Your task to perform on an android device: Open battery settings Image 0: 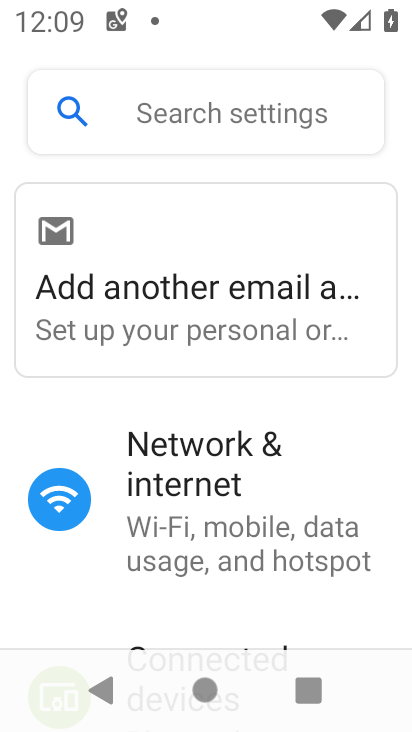
Step 0: press home button
Your task to perform on an android device: Open battery settings Image 1: 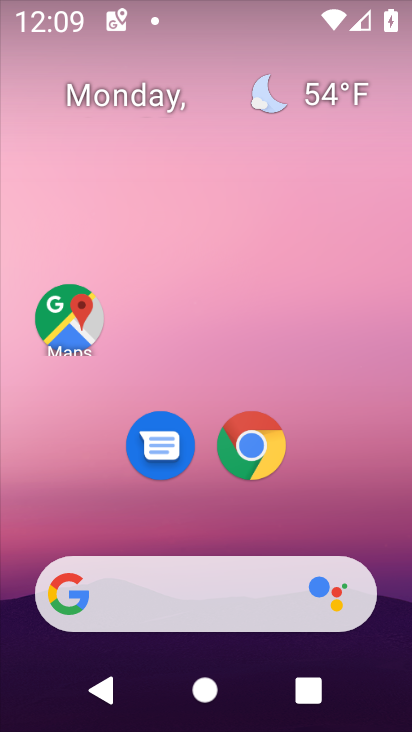
Step 1: drag from (353, 462) to (326, 166)
Your task to perform on an android device: Open battery settings Image 2: 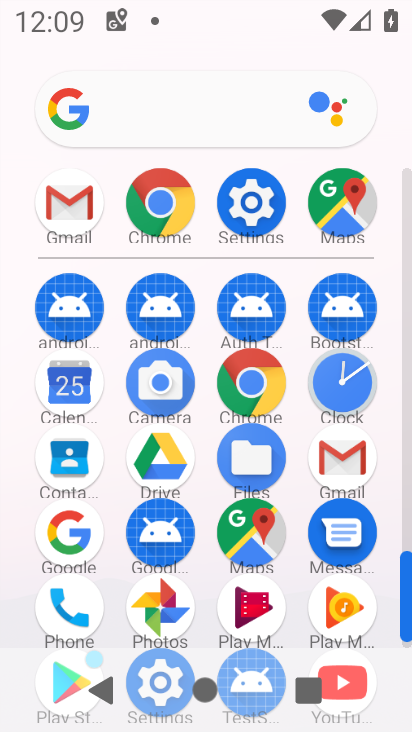
Step 2: drag from (287, 553) to (283, 245)
Your task to perform on an android device: Open battery settings Image 3: 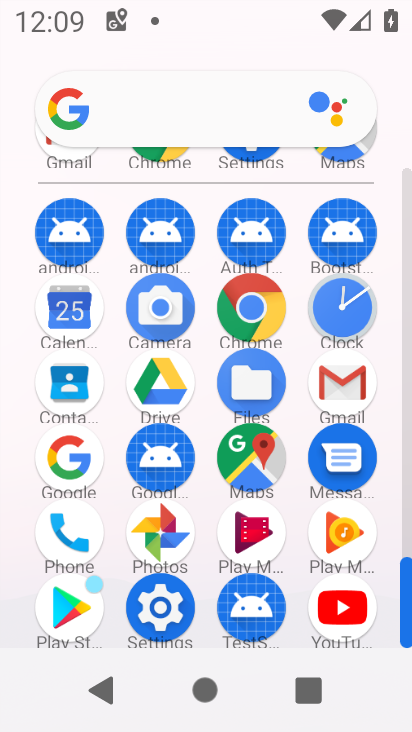
Step 3: click (174, 608)
Your task to perform on an android device: Open battery settings Image 4: 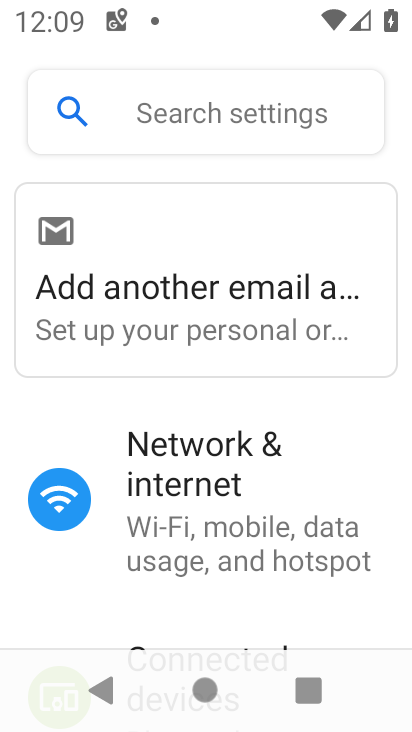
Step 4: drag from (380, 603) to (374, 258)
Your task to perform on an android device: Open battery settings Image 5: 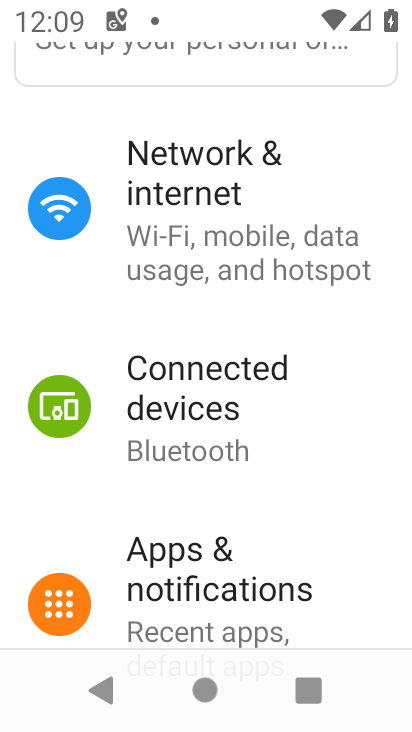
Step 5: drag from (350, 578) to (320, 178)
Your task to perform on an android device: Open battery settings Image 6: 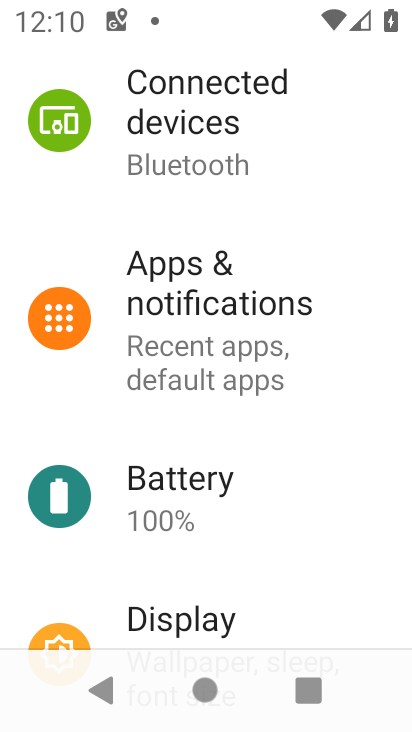
Step 6: click (216, 498)
Your task to perform on an android device: Open battery settings Image 7: 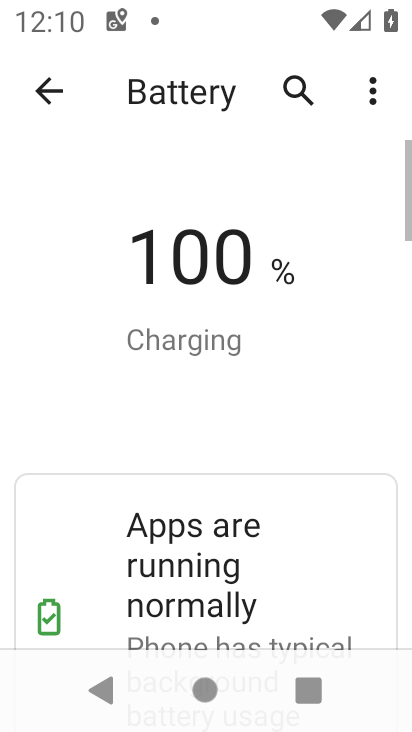
Step 7: task complete